Your task to perform on an android device: change the clock display to digital Image 0: 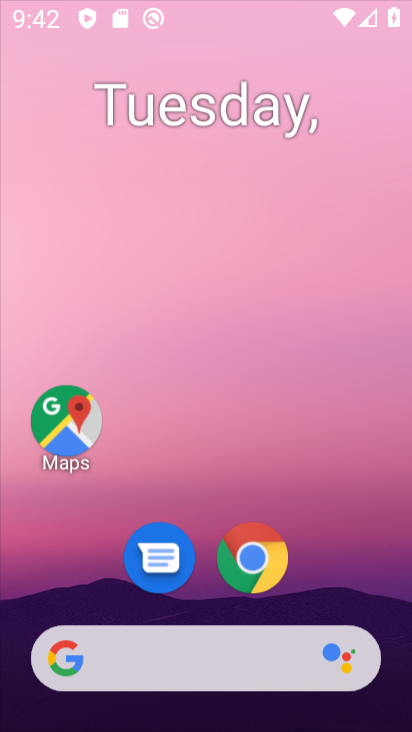
Step 0: click (56, 11)
Your task to perform on an android device: change the clock display to digital Image 1: 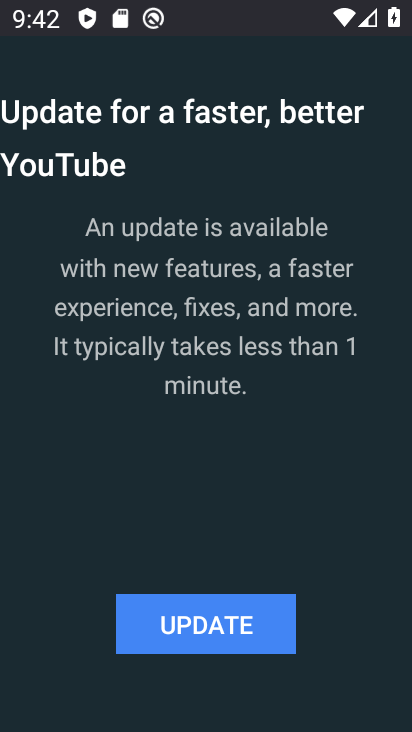
Step 1: click (247, 611)
Your task to perform on an android device: change the clock display to digital Image 2: 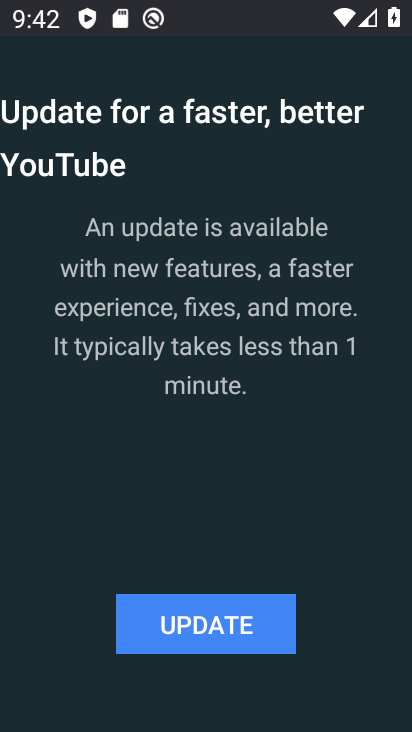
Step 2: click (243, 608)
Your task to perform on an android device: change the clock display to digital Image 3: 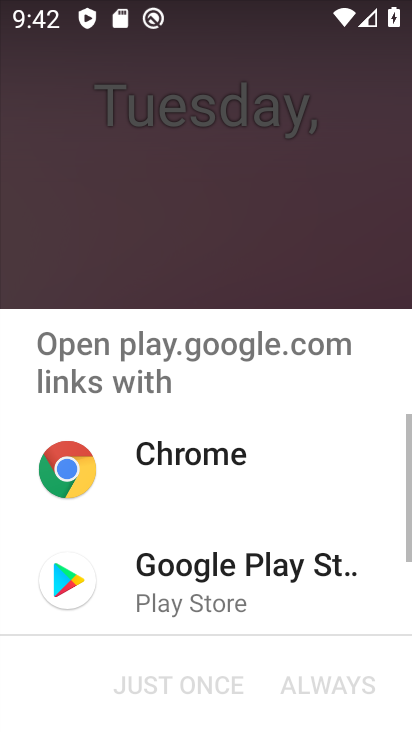
Step 3: press back button
Your task to perform on an android device: change the clock display to digital Image 4: 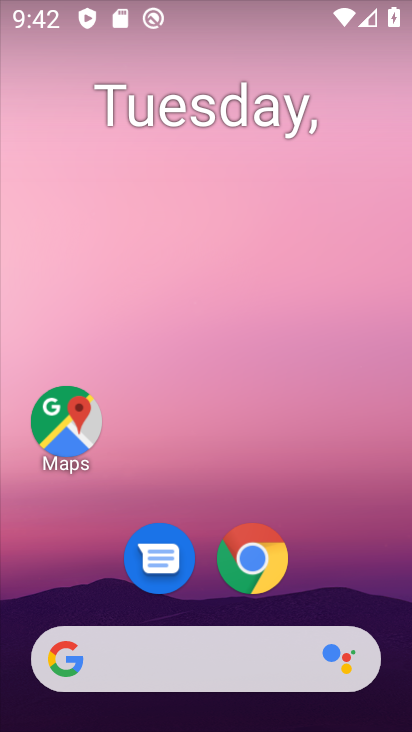
Step 4: press back button
Your task to perform on an android device: change the clock display to digital Image 5: 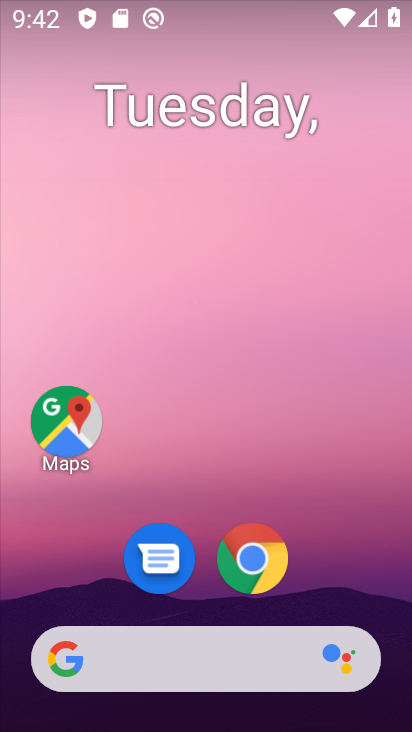
Step 5: press back button
Your task to perform on an android device: change the clock display to digital Image 6: 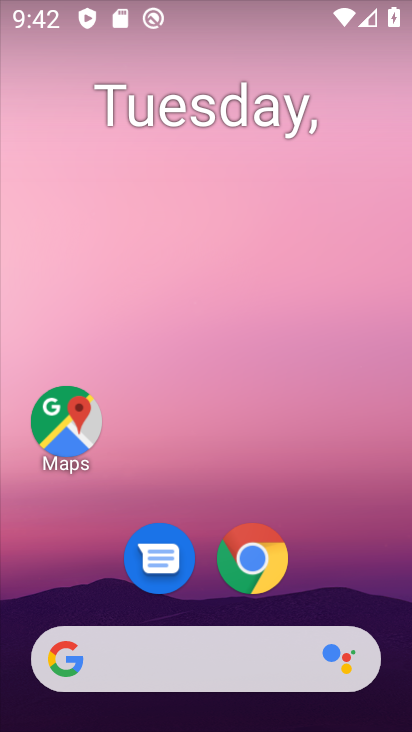
Step 6: press back button
Your task to perform on an android device: change the clock display to digital Image 7: 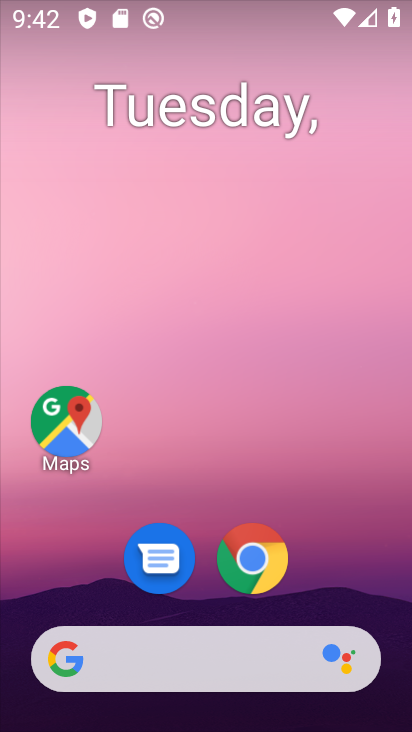
Step 7: drag from (352, 624) to (91, 3)
Your task to perform on an android device: change the clock display to digital Image 8: 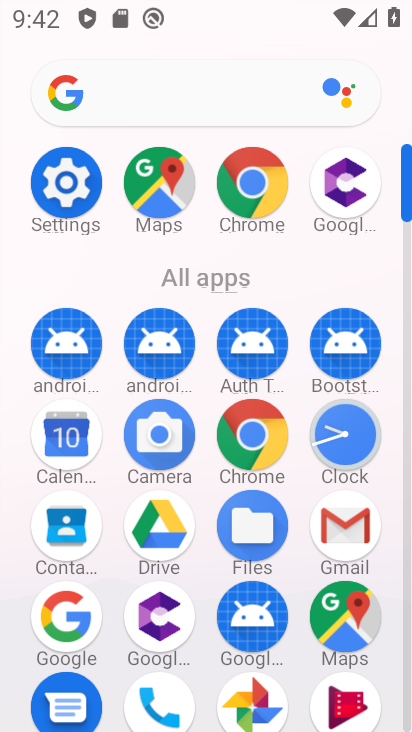
Step 8: click (361, 430)
Your task to perform on an android device: change the clock display to digital Image 9: 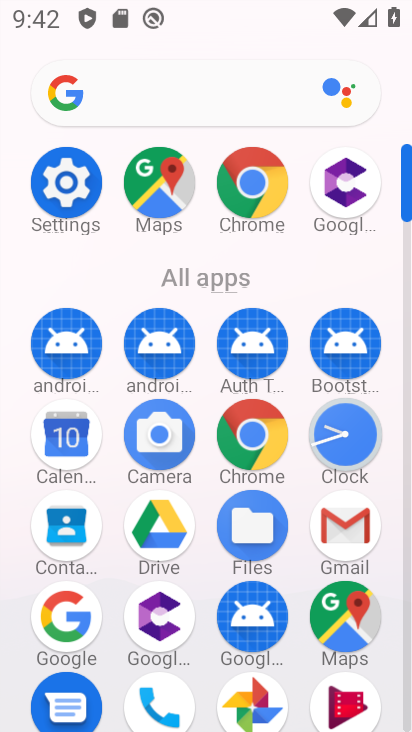
Step 9: click (359, 429)
Your task to perform on an android device: change the clock display to digital Image 10: 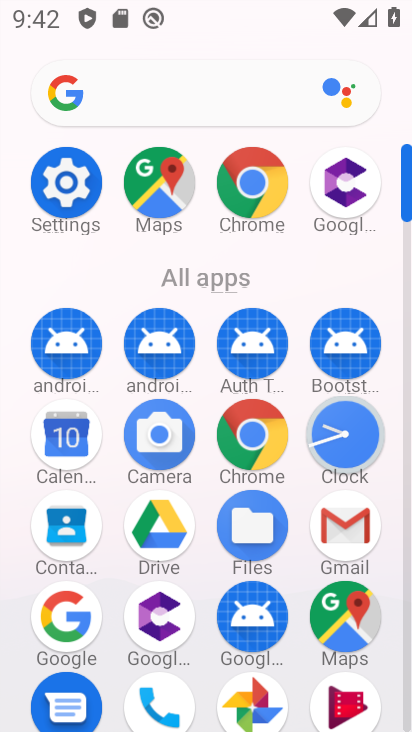
Step 10: click (359, 429)
Your task to perform on an android device: change the clock display to digital Image 11: 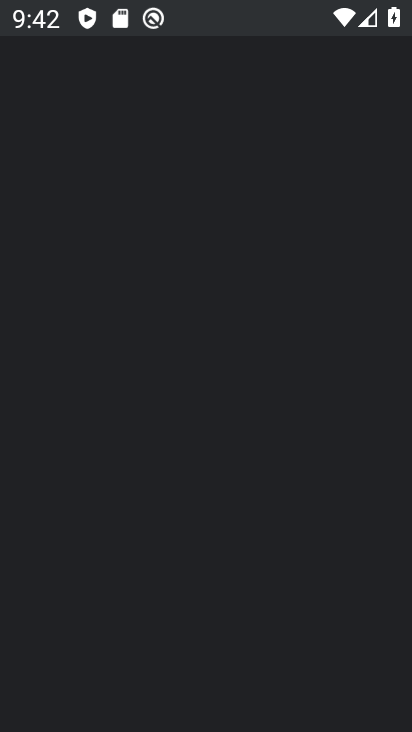
Step 11: click (355, 428)
Your task to perform on an android device: change the clock display to digital Image 12: 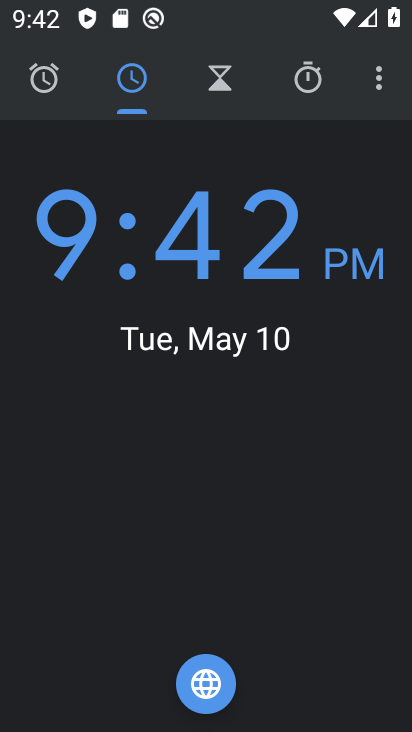
Step 12: click (389, 79)
Your task to perform on an android device: change the clock display to digital Image 13: 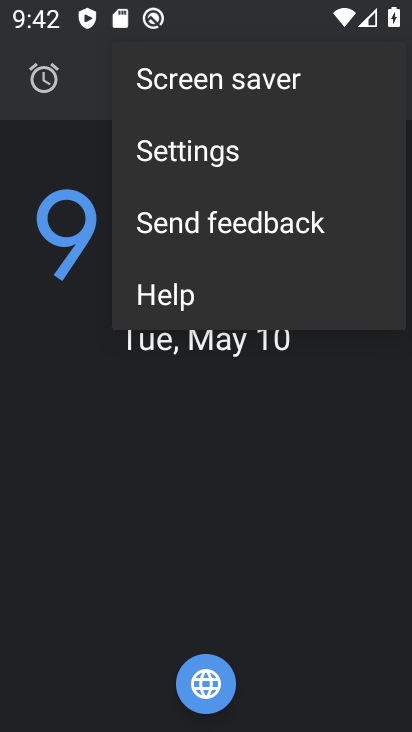
Step 13: click (212, 154)
Your task to perform on an android device: change the clock display to digital Image 14: 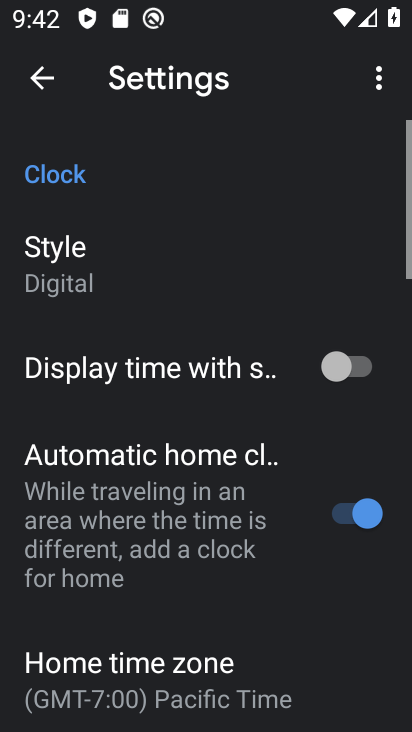
Step 14: click (152, 247)
Your task to perform on an android device: change the clock display to digital Image 15: 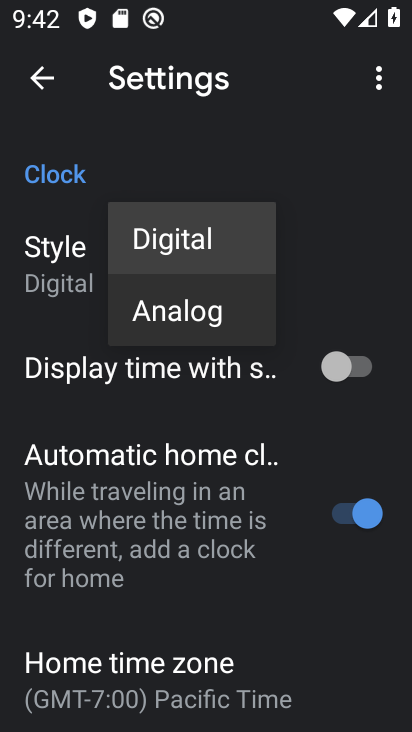
Step 15: click (182, 241)
Your task to perform on an android device: change the clock display to digital Image 16: 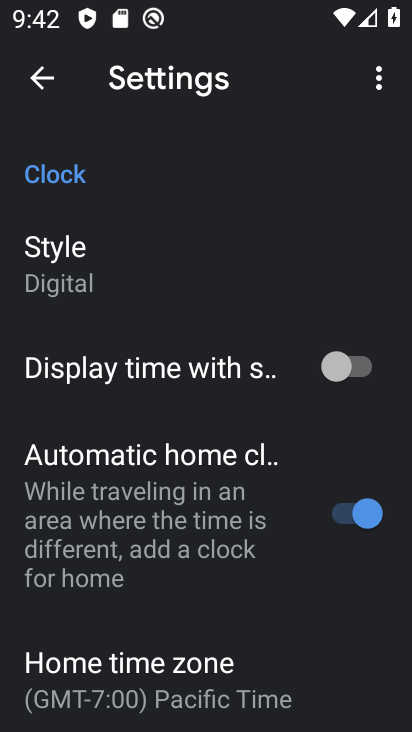
Step 16: task complete